Your task to perform on an android device: Go to Wikipedia Image 0: 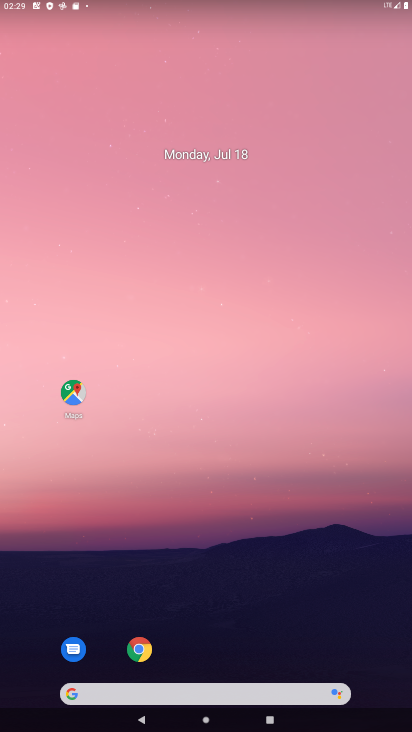
Step 0: click (172, 695)
Your task to perform on an android device: Go to Wikipedia Image 1: 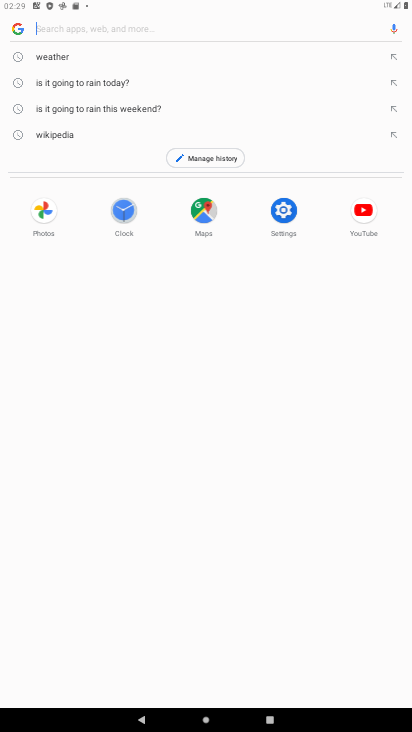
Step 1: click (61, 132)
Your task to perform on an android device: Go to Wikipedia Image 2: 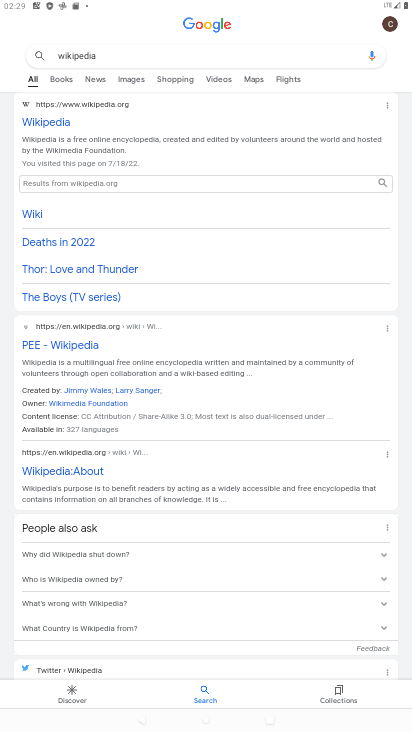
Step 2: click (46, 120)
Your task to perform on an android device: Go to Wikipedia Image 3: 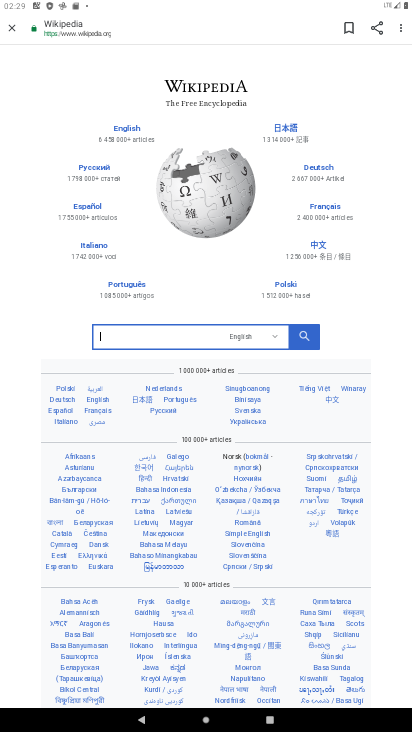
Step 3: task complete